Your task to perform on an android device: Turn off the flashlight Image 0: 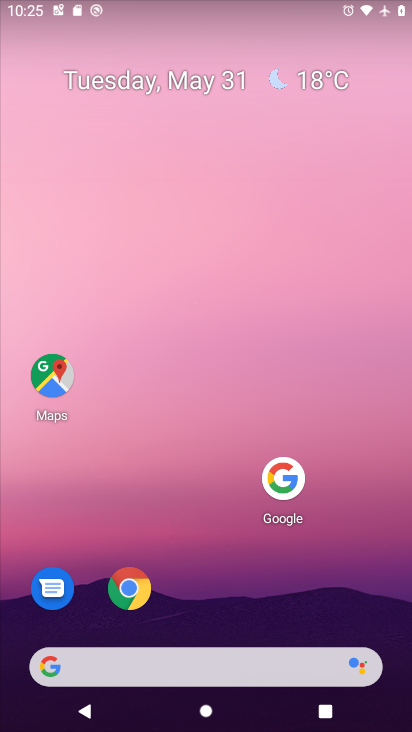
Step 0: drag from (247, 6) to (217, 475)
Your task to perform on an android device: Turn off the flashlight Image 1: 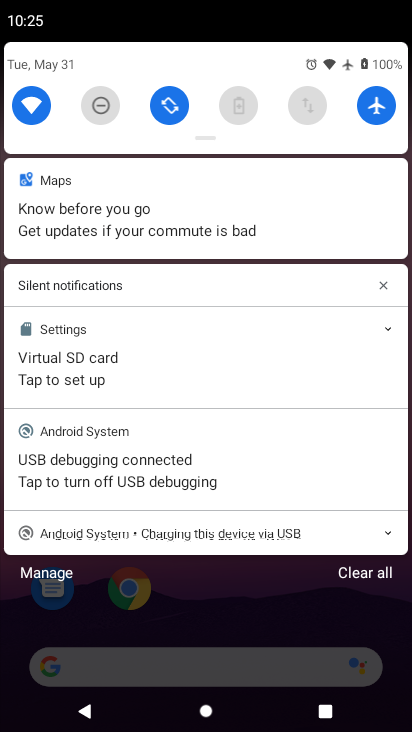
Step 1: task complete